Your task to perform on an android device: set an alarm Image 0: 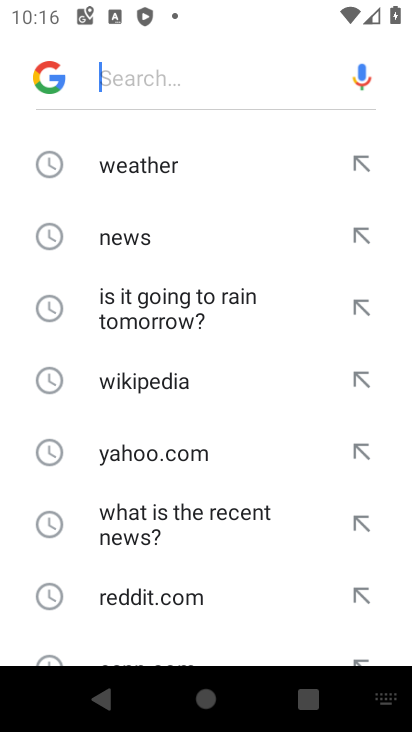
Step 0: press home button
Your task to perform on an android device: set an alarm Image 1: 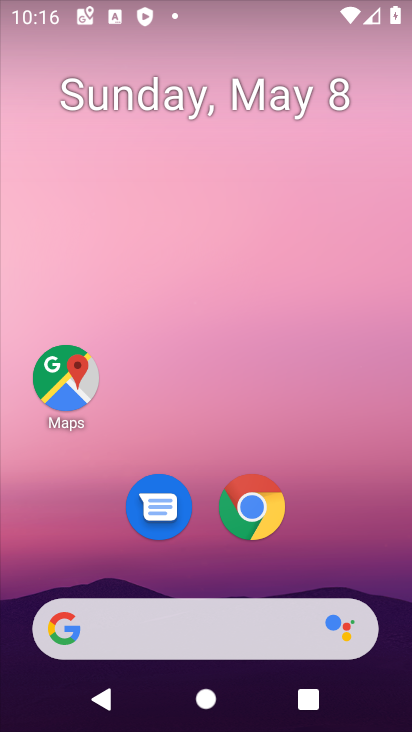
Step 1: drag from (253, 666) to (226, 101)
Your task to perform on an android device: set an alarm Image 2: 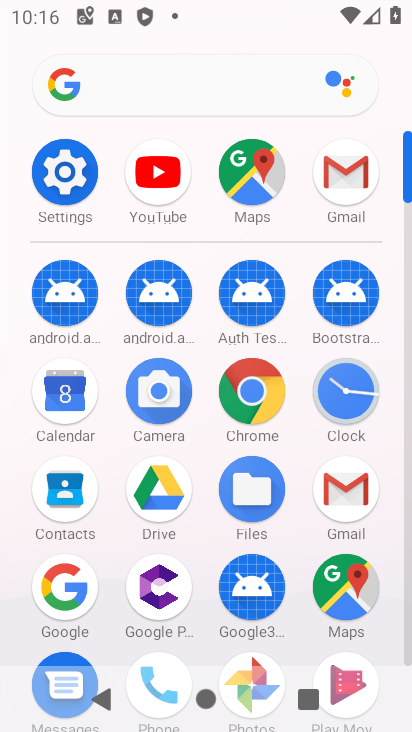
Step 2: drag from (296, 605) to (229, 87)
Your task to perform on an android device: set an alarm Image 3: 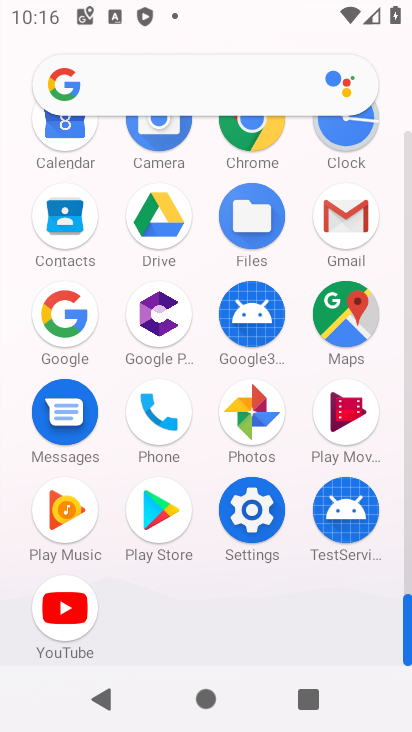
Step 3: click (345, 138)
Your task to perform on an android device: set an alarm Image 4: 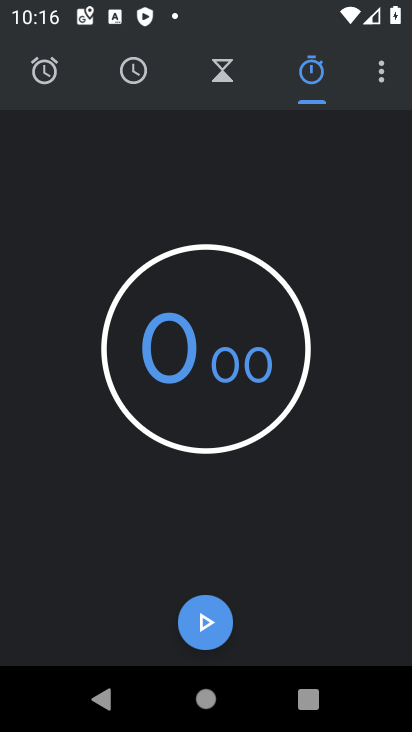
Step 4: click (55, 65)
Your task to perform on an android device: set an alarm Image 5: 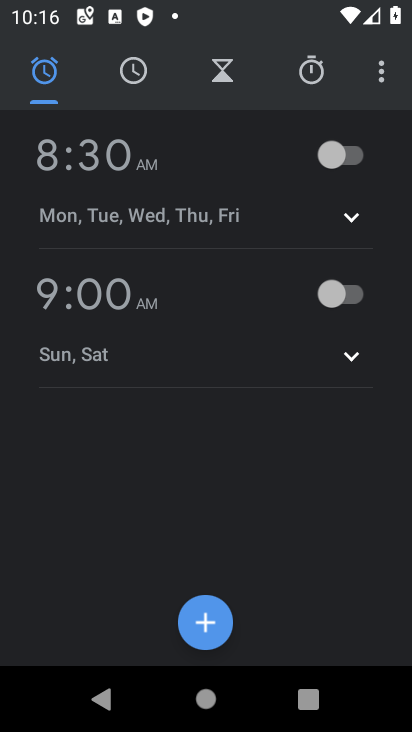
Step 5: click (221, 631)
Your task to perform on an android device: set an alarm Image 6: 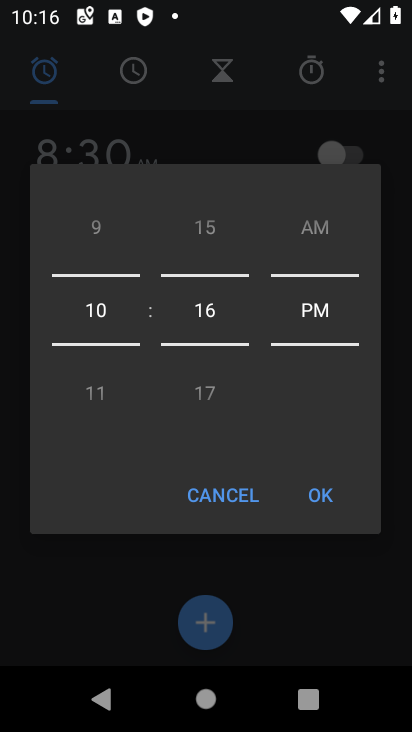
Step 6: click (330, 503)
Your task to perform on an android device: set an alarm Image 7: 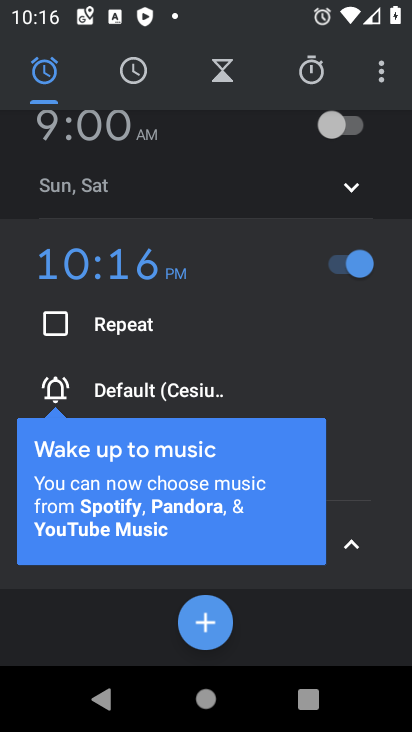
Step 7: click (318, 629)
Your task to perform on an android device: set an alarm Image 8: 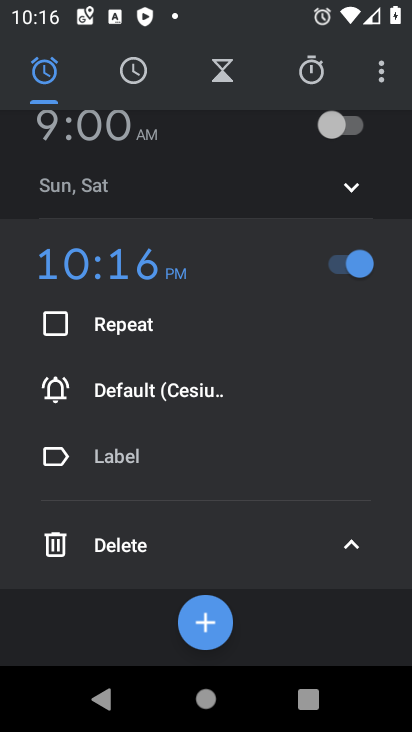
Step 8: click (320, 644)
Your task to perform on an android device: set an alarm Image 9: 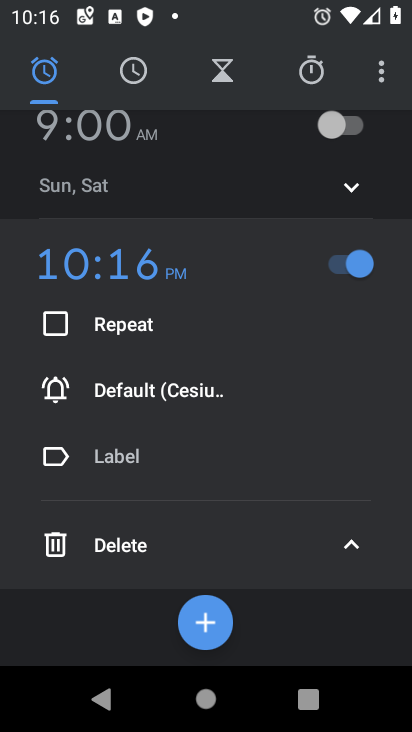
Step 9: task complete